Your task to perform on an android device: turn on data saver in the chrome app Image 0: 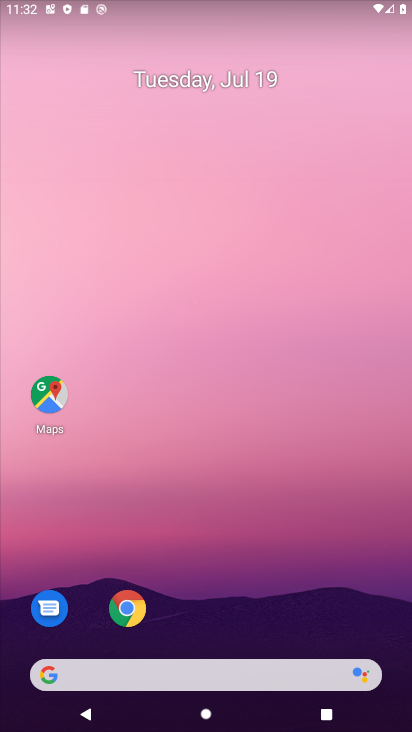
Step 0: click (128, 612)
Your task to perform on an android device: turn on data saver in the chrome app Image 1: 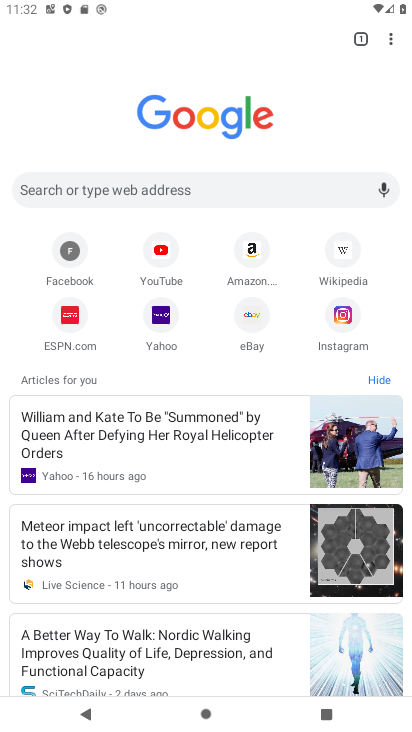
Step 1: click (385, 41)
Your task to perform on an android device: turn on data saver in the chrome app Image 2: 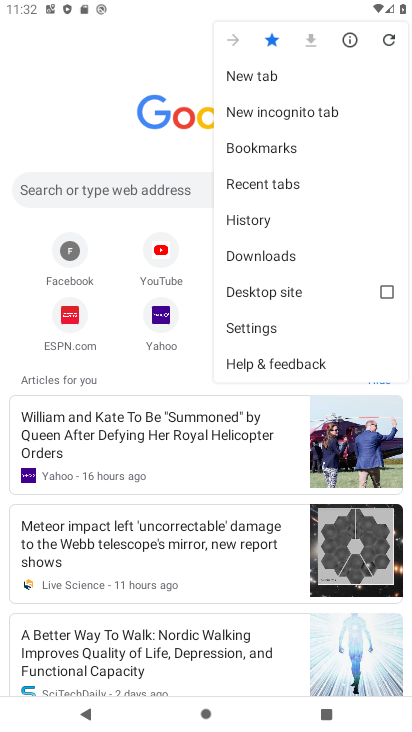
Step 2: click (263, 330)
Your task to perform on an android device: turn on data saver in the chrome app Image 3: 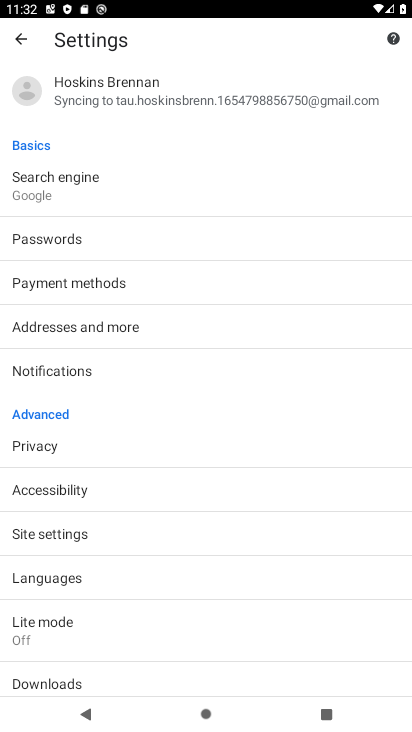
Step 3: click (70, 634)
Your task to perform on an android device: turn on data saver in the chrome app Image 4: 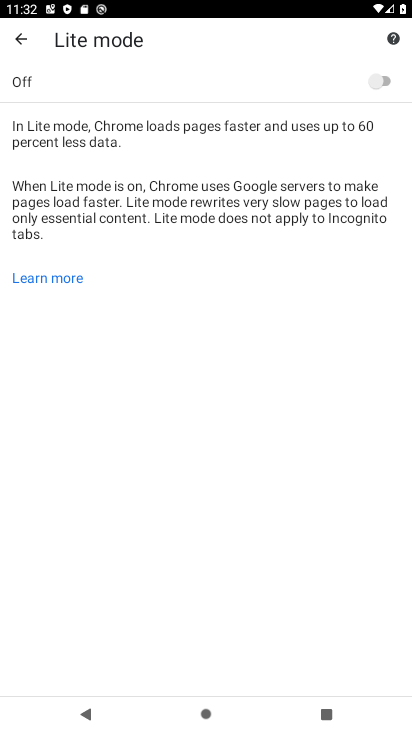
Step 4: click (379, 77)
Your task to perform on an android device: turn on data saver in the chrome app Image 5: 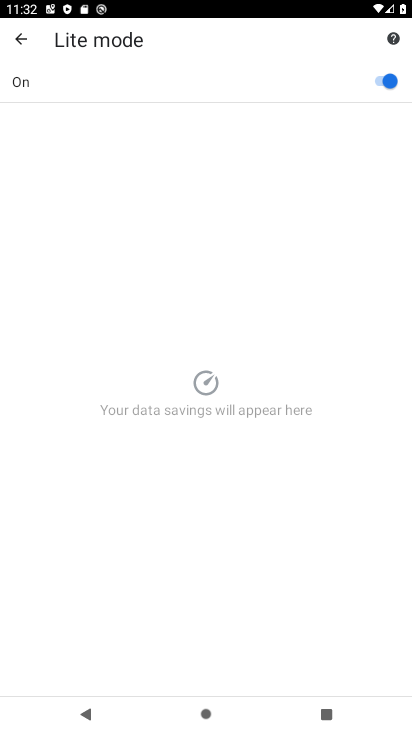
Step 5: task complete